Your task to perform on an android device: turn on bluetooth scan Image 0: 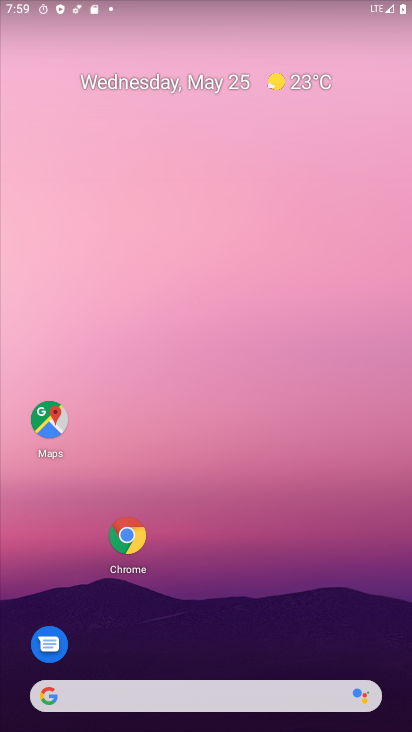
Step 0: drag from (209, 692) to (228, 87)
Your task to perform on an android device: turn on bluetooth scan Image 1: 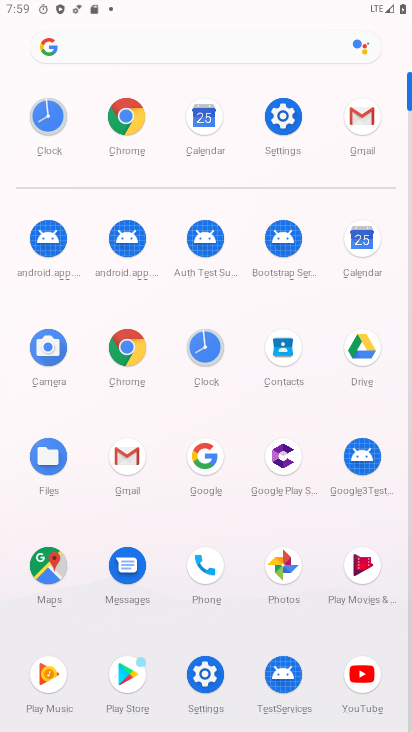
Step 1: click (294, 142)
Your task to perform on an android device: turn on bluetooth scan Image 2: 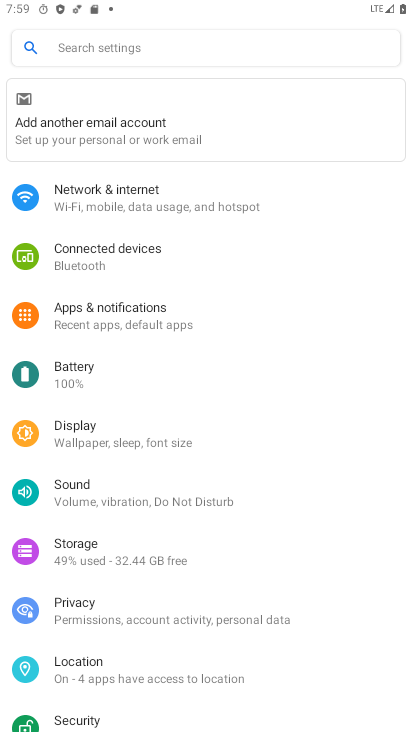
Step 2: click (113, 664)
Your task to perform on an android device: turn on bluetooth scan Image 3: 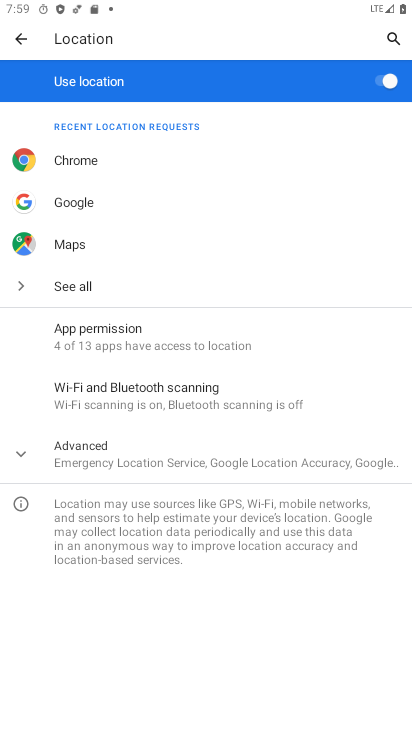
Step 3: click (99, 384)
Your task to perform on an android device: turn on bluetooth scan Image 4: 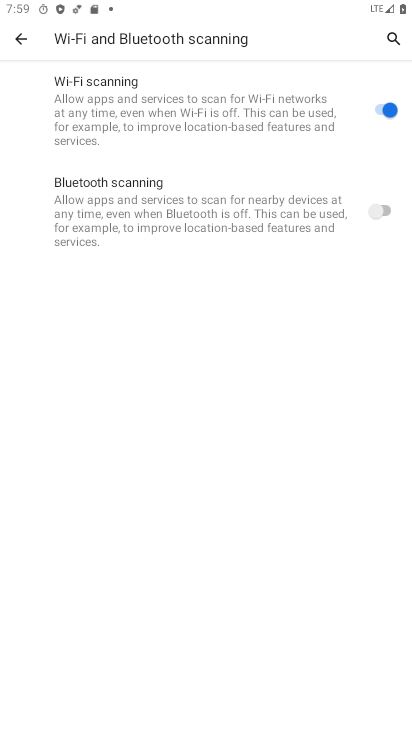
Step 4: click (375, 210)
Your task to perform on an android device: turn on bluetooth scan Image 5: 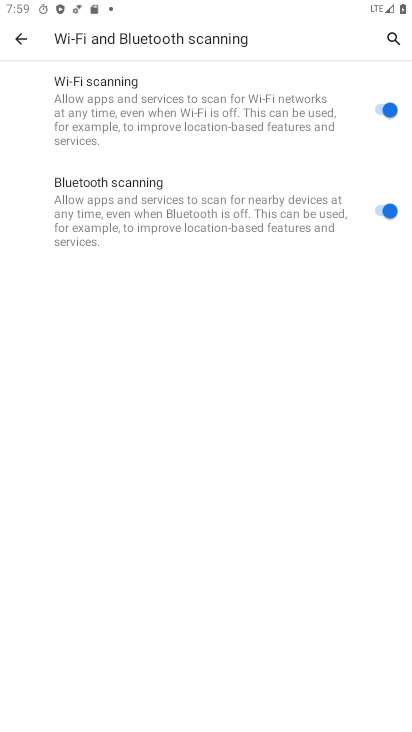
Step 5: task complete